Your task to perform on an android device: empty trash in google photos Image 0: 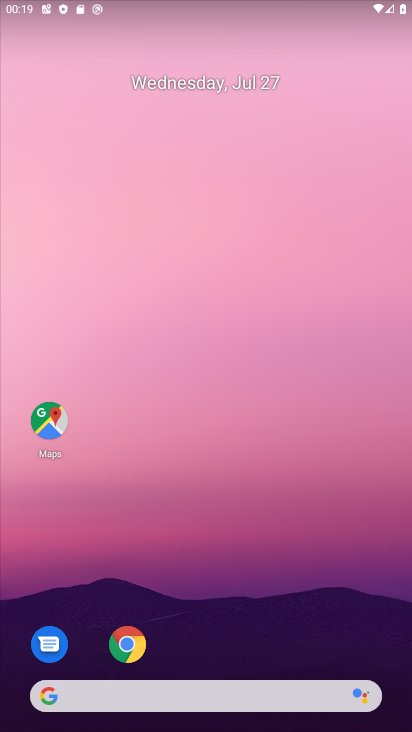
Step 0: click (159, 140)
Your task to perform on an android device: empty trash in google photos Image 1: 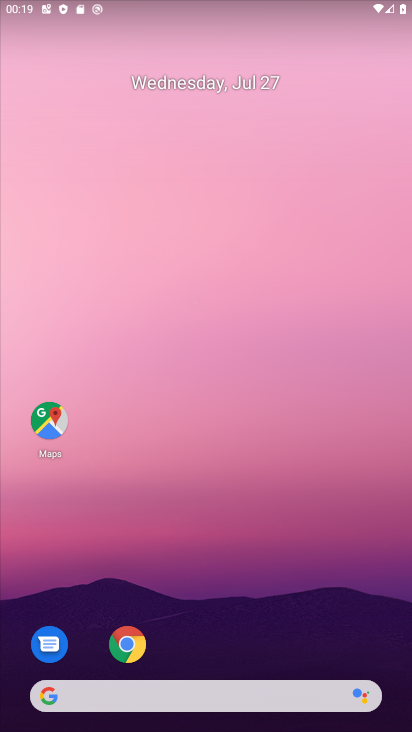
Step 1: drag from (143, 544) to (81, 117)
Your task to perform on an android device: empty trash in google photos Image 2: 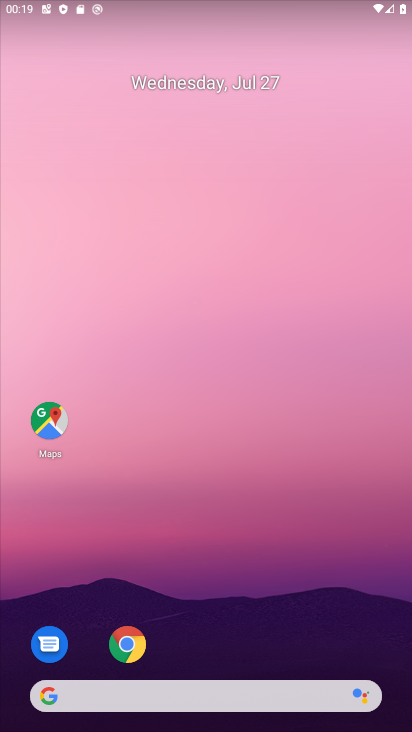
Step 2: drag from (211, 570) to (212, 211)
Your task to perform on an android device: empty trash in google photos Image 3: 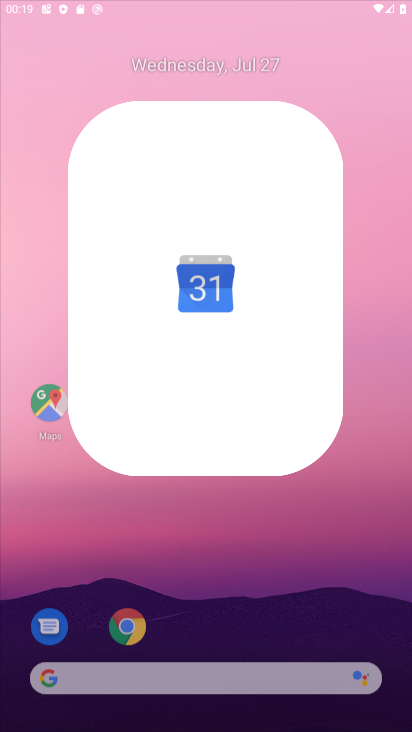
Step 3: drag from (286, 623) to (270, 117)
Your task to perform on an android device: empty trash in google photos Image 4: 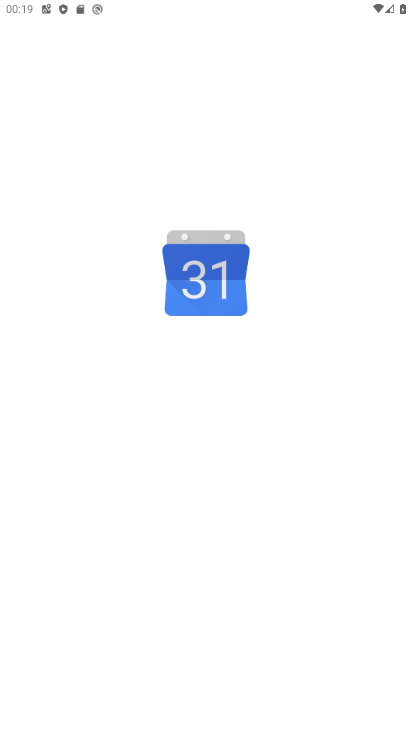
Step 4: drag from (211, 301) to (200, 85)
Your task to perform on an android device: empty trash in google photos Image 5: 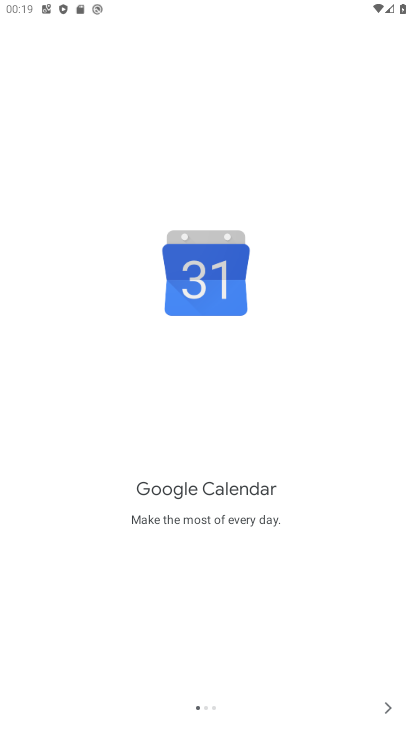
Step 5: drag from (239, 432) to (171, 55)
Your task to perform on an android device: empty trash in google photos Image 6: 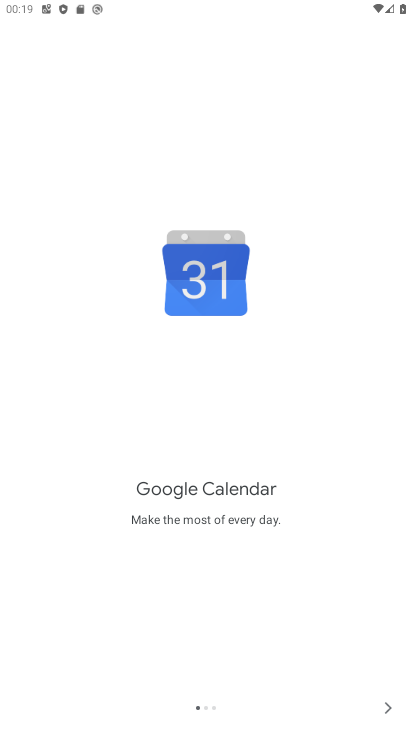
Step 6: press back button
Your task to perform on an android device: empty trash in google photos Image 7: 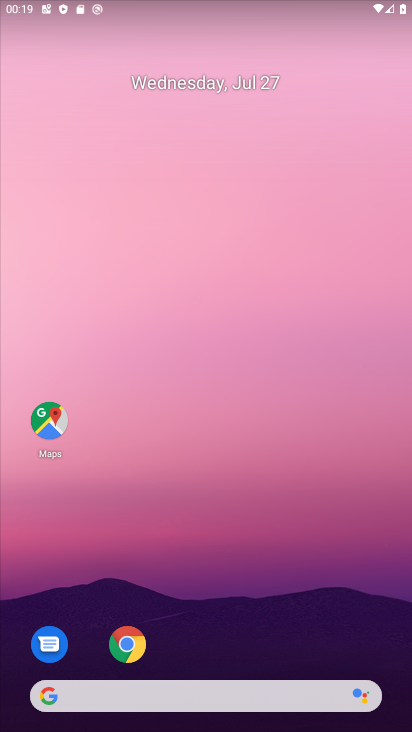
Step 7: drag from (262, 684) to (241, 210)
Your task to perform on an android device: empty trash in google photos Image 8: 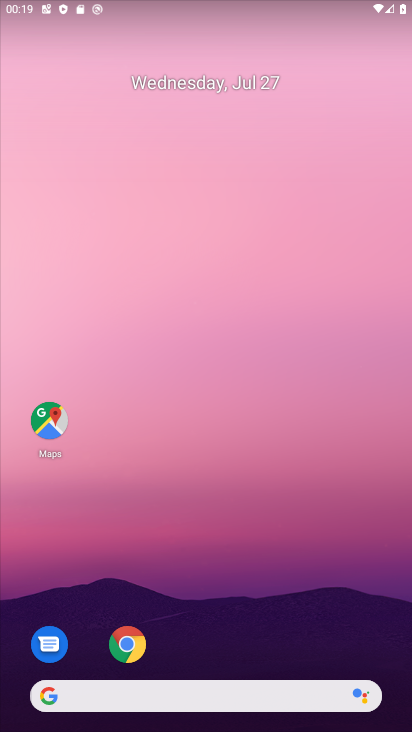
Step 8: drag from (229, 613) to (156, 212)
Your task to perform on an android device: empty trash in google photos Image 9: 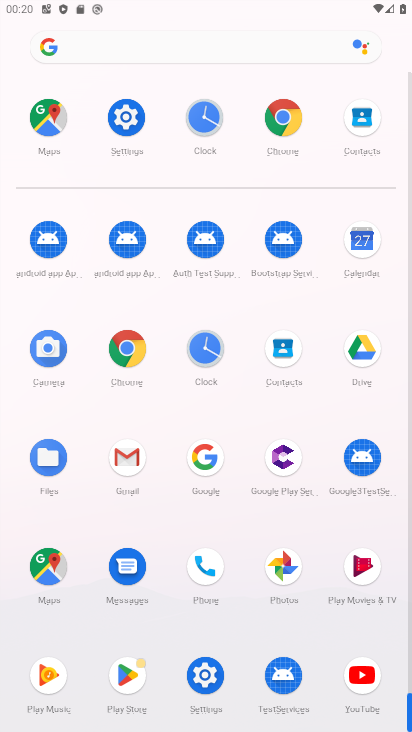
Step 9: click (272, 571)
Your task to perform on an android device: empty trash in google photos Image 10: 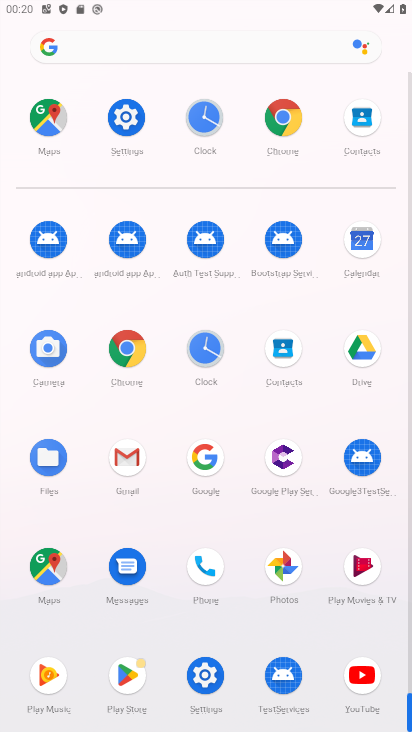
Step 10: click (276, 570)
Your task to perform on an android device: empty trash in google photos Image 11: 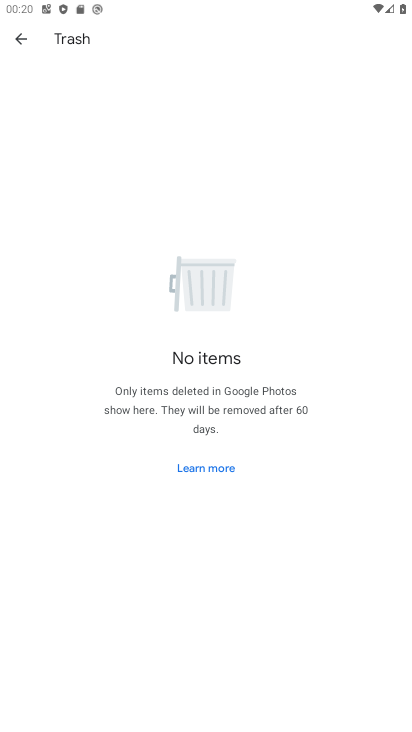
Step 11: task complete